Your task to perform on an android device: toggle wifi Image 0: 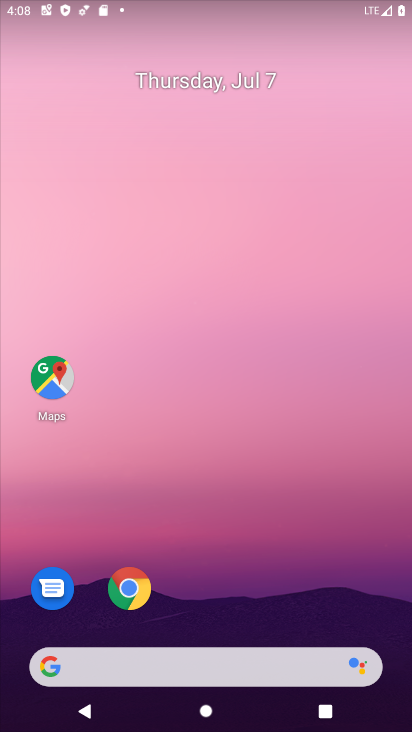
Step 0: press home button
Your task to perform on an android device: toggle wifi Image 1: 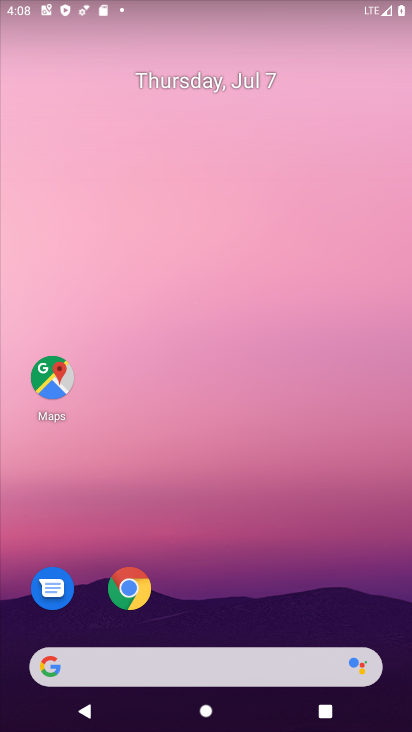
Step 1: drag from (183, 7) to (206, 390)
Your task to perform on an android device: toggle wifi Image 2: 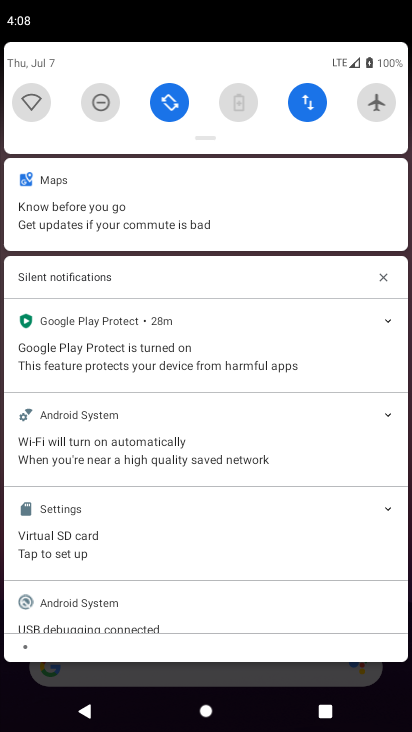
Step 2: click (33, 107)
Your task to perform on an android device: toggle wifi Image 3: 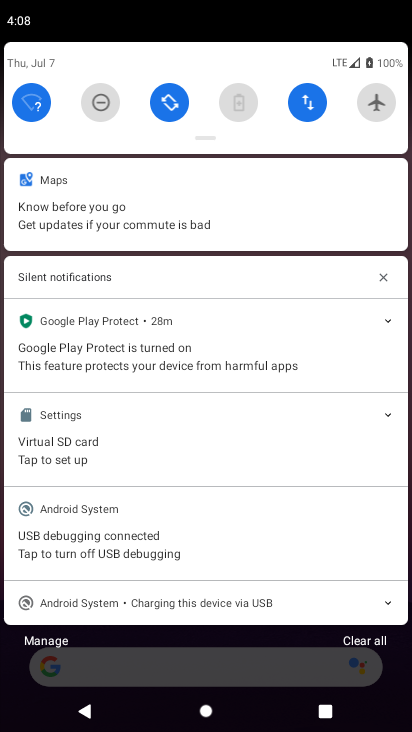
Step 3: task complete